Your task to perform on an android device: Go to ESPN.com Image 0: 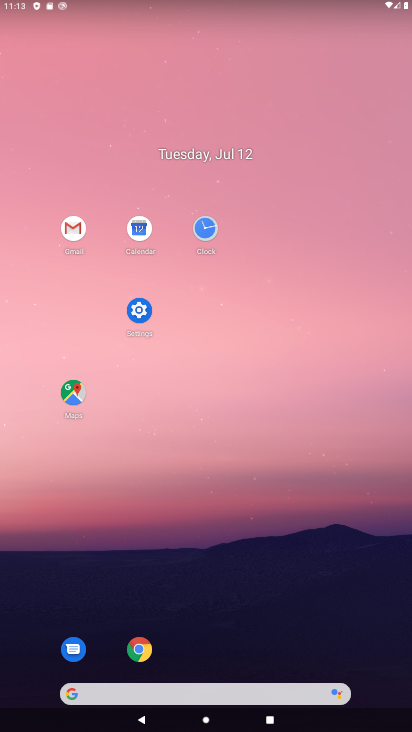
Step 0: click (136, 654)
Your task to perform on an android device: Go to ESPN.com Image 1: 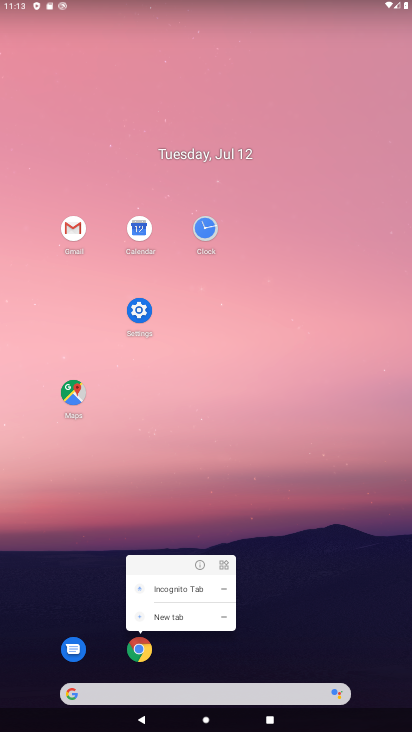
Step 1: click (136, 654)
Your task to perform on an android device: Go to ESPN.com Image 2: 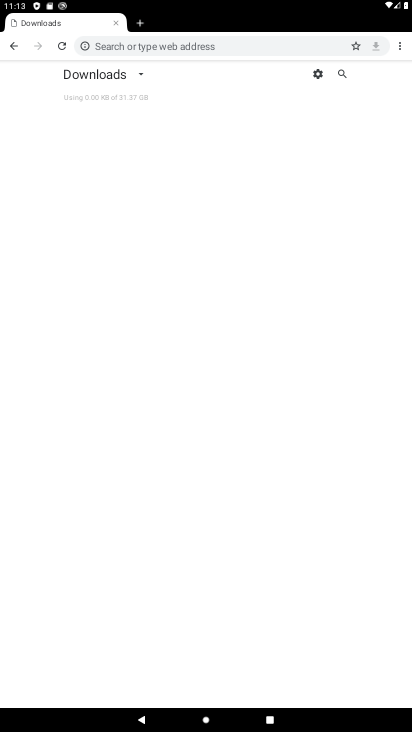
Step 2: click (141, 18)
Your task to perform on an android device: Go to ESPN.com Image 3: 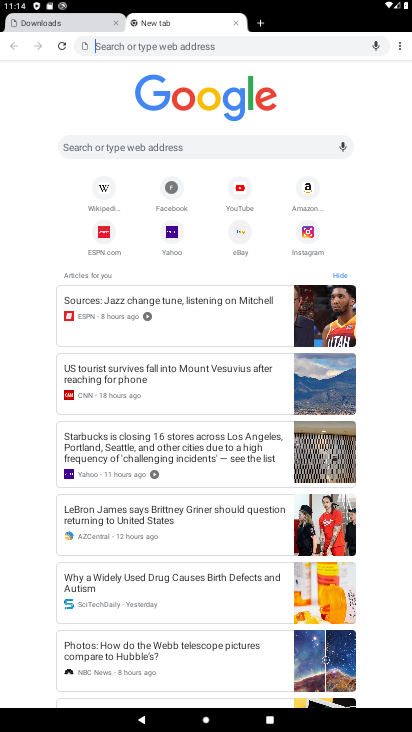
Step 3: click (101, 233)
Your task to perform on an android device: Go to ESPN.com Image 4: 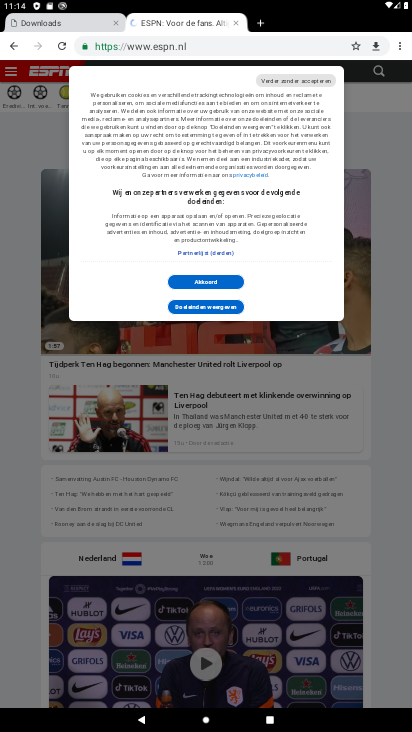
Step 4: task complete